Your task to perform on an android device: Add "alienware aurora" to the cart on amazon, then select checkout. Image 0: 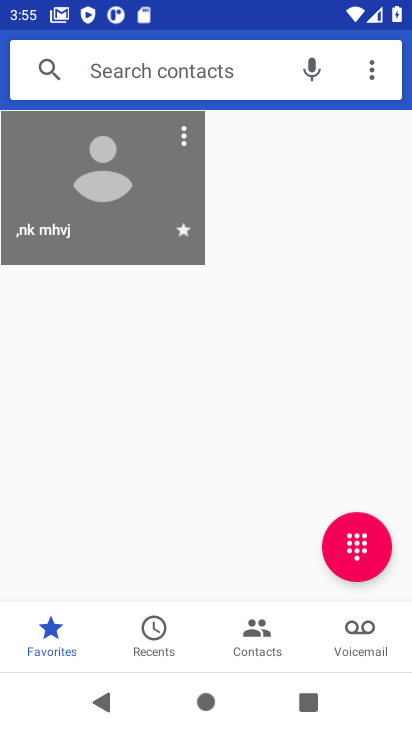
Step 0: press home button
Your task to perform on an android device: Add "alienware aurora" to the cart on amazon, then select checkout. Image 1: 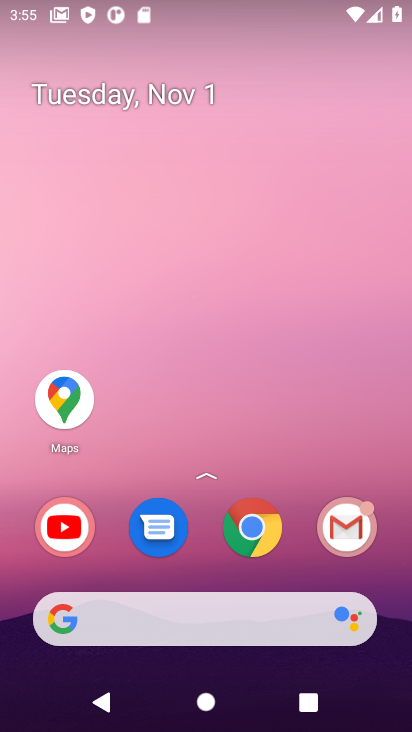
Step 1: click (197, 618)
Your task to perform on an android device: Add "alienware aurora" to the cart on amazon, then select checkout. Image 2: 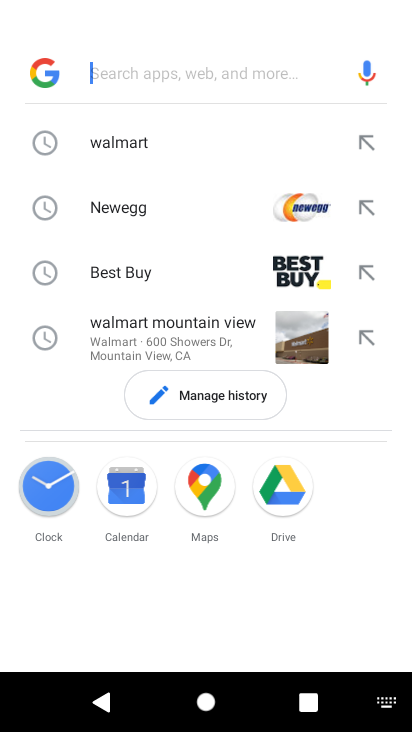
Step 2: type "amazon"
Your task to perform on an android device: Add "alienware aurora" to the cart on amazon, then select checkout. Image 3: 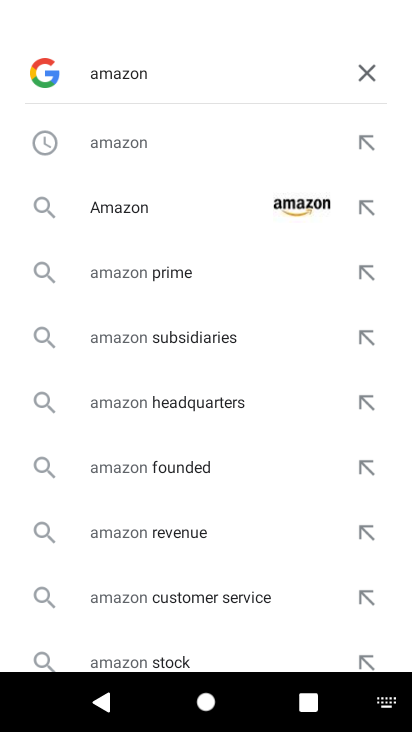
Step 3: click (180, 207)
Your task to perform on an android device: Add "alienware aurora" to the cart on amazon, then select checkout. Image 4: 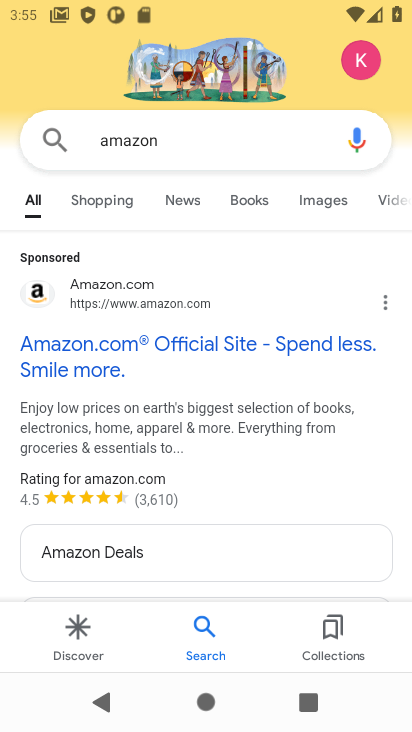
Step 4: click (97, 285)
Your task to perform on an android device: Add "alienware aurora" to the cart on amazon, then select checkout. Image 5: 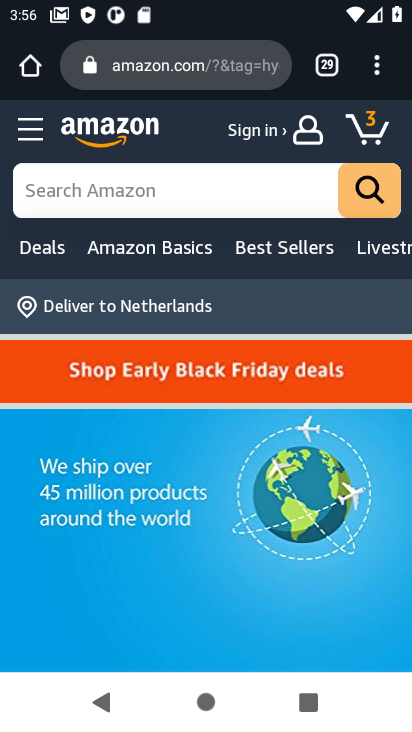
Step 5: click (191, 192)
Your task to perform on an android device: Add "alienware aurora" to the cart on amazon, then select checkout. Image 6: 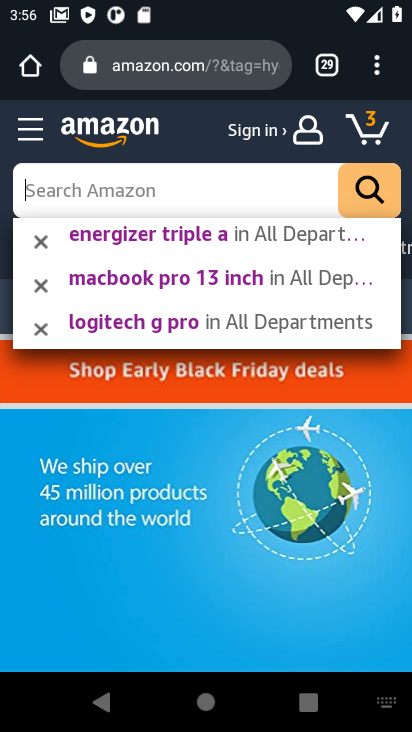
Step 6: type "alienware aurora"
Your task to perform on an android device: Add "alienware aurora" to the cart on amazon, then select checkout. Image 7: 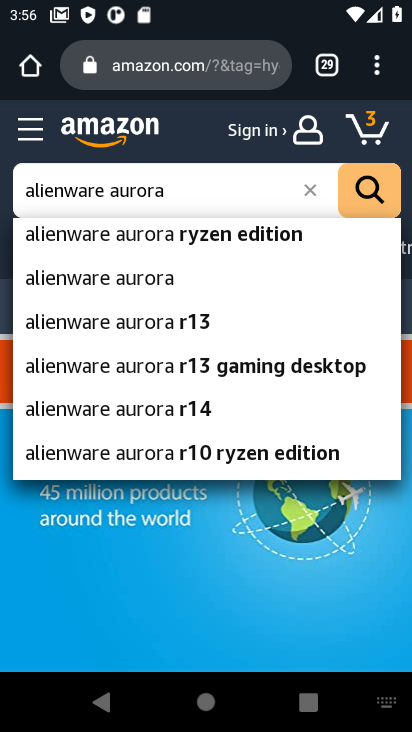
Step 7: click (135, 283)
Your task to perform on an android device: Add "alienware aurora" to the cart on amazon, then select checkout. Image 8: 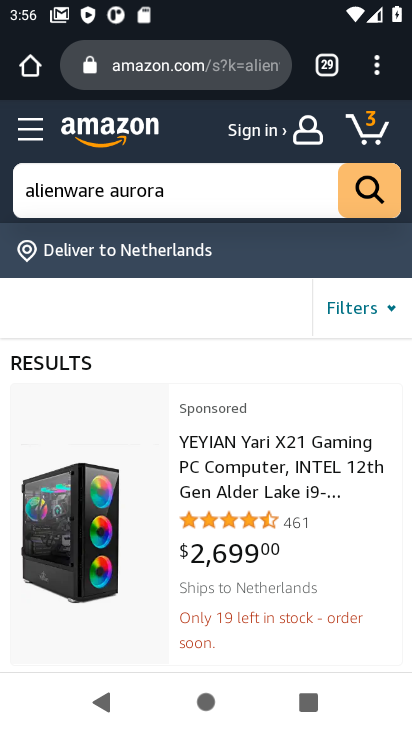
Step 8: click (205, 445)
Your task to perform on an android device: Add "alienware aurora" to the cart on amazon, then select checkout. Image 9: 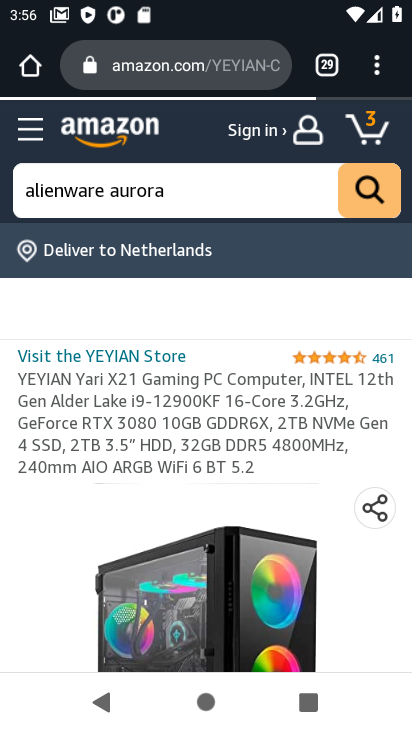
Step 9: drag from (283, 504) to (287, 303)
Your task to perform on an android device: Add "alienware aurora" to the cart on amazon, then select checkout. Image 10: 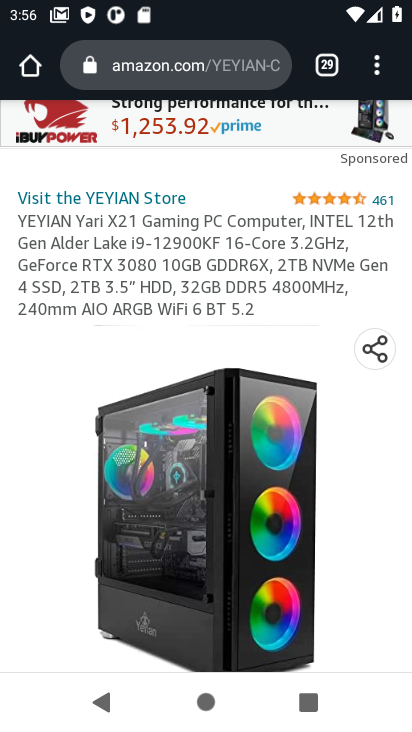
Step 10: drag from (347, 535) to (341, 250)
Your task to perform on an android device: Add "alienware aurora" to the cart on amazon, then select checkout. Image 11: 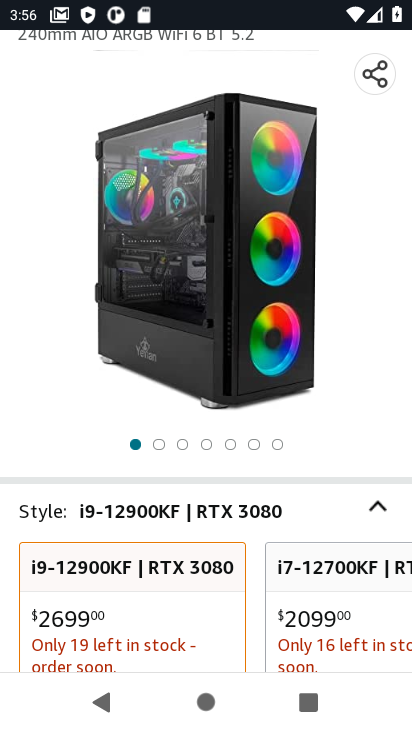
Step 11: drag from (304, 428) to (321, 284)
Your task to perform on an android device: Add "alienware aurora" to the cart on amazon, then select checkout. Image 12: 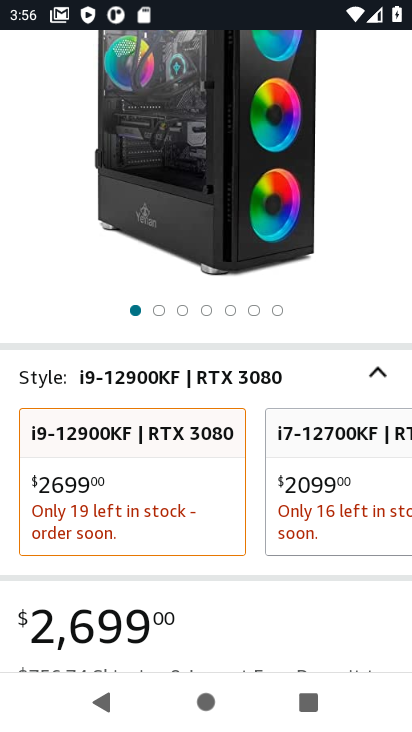
Step 12: drag from (213, 572) to (302, 295)
Your task to perform on an android device: Add "alienware aurora" to the cart on amazon, then select checkout. Image 13: 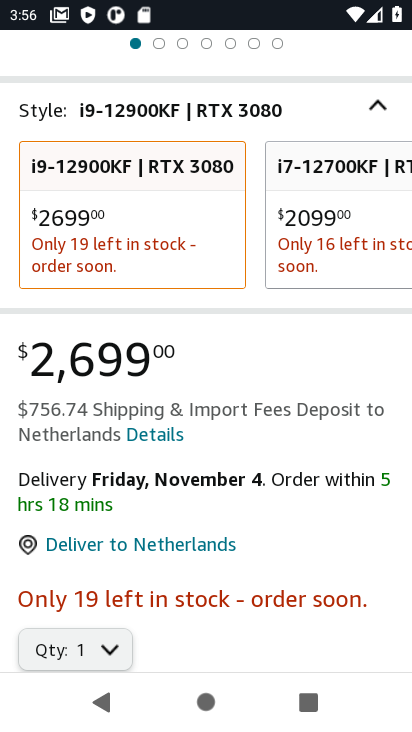
Step 13: drag from (274, 547) to (287, 354)
Your task to perform on an android device: Add "alienware aurora" to the cart on amazon, then select checkout. Image 14: 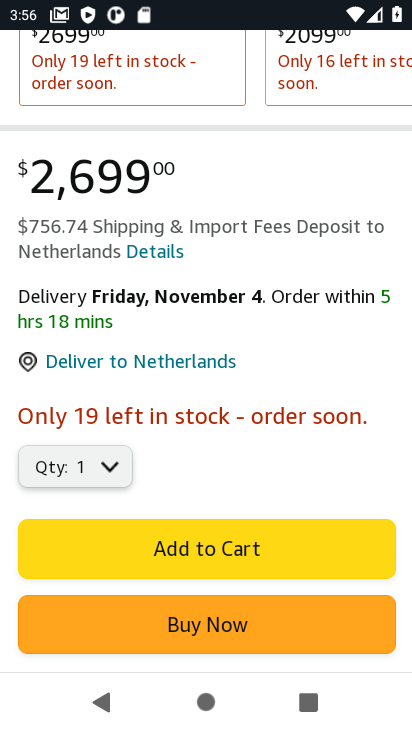
Step 14: click (225, 553)
Your task to perform on an android device: Add "alienware aurora" to the cart on amazon, then select checkout. Image 15: 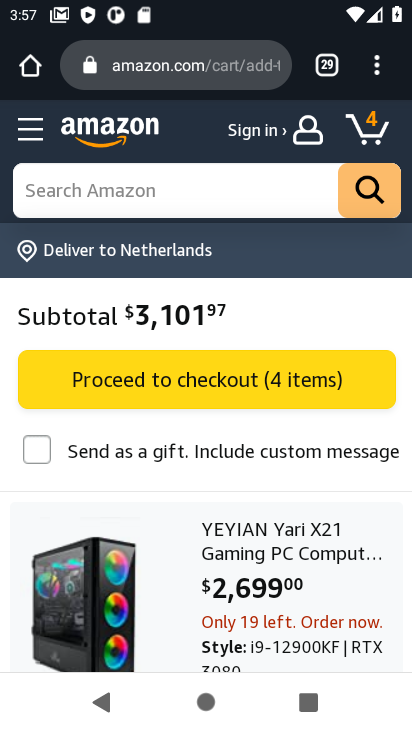
Step 15: click (215, 381)
Your task to perform on an android device: Add "alienware aurora" to the cart on amazon, then select checkout. Image 16: 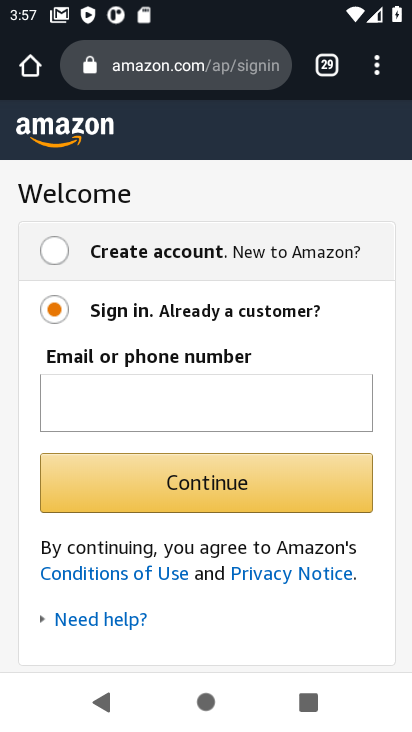
Step 16: task complete